Your task to perform on an android device: open app "TextNow: Call + Text Unlimited" (install if not already installed) Image 0: 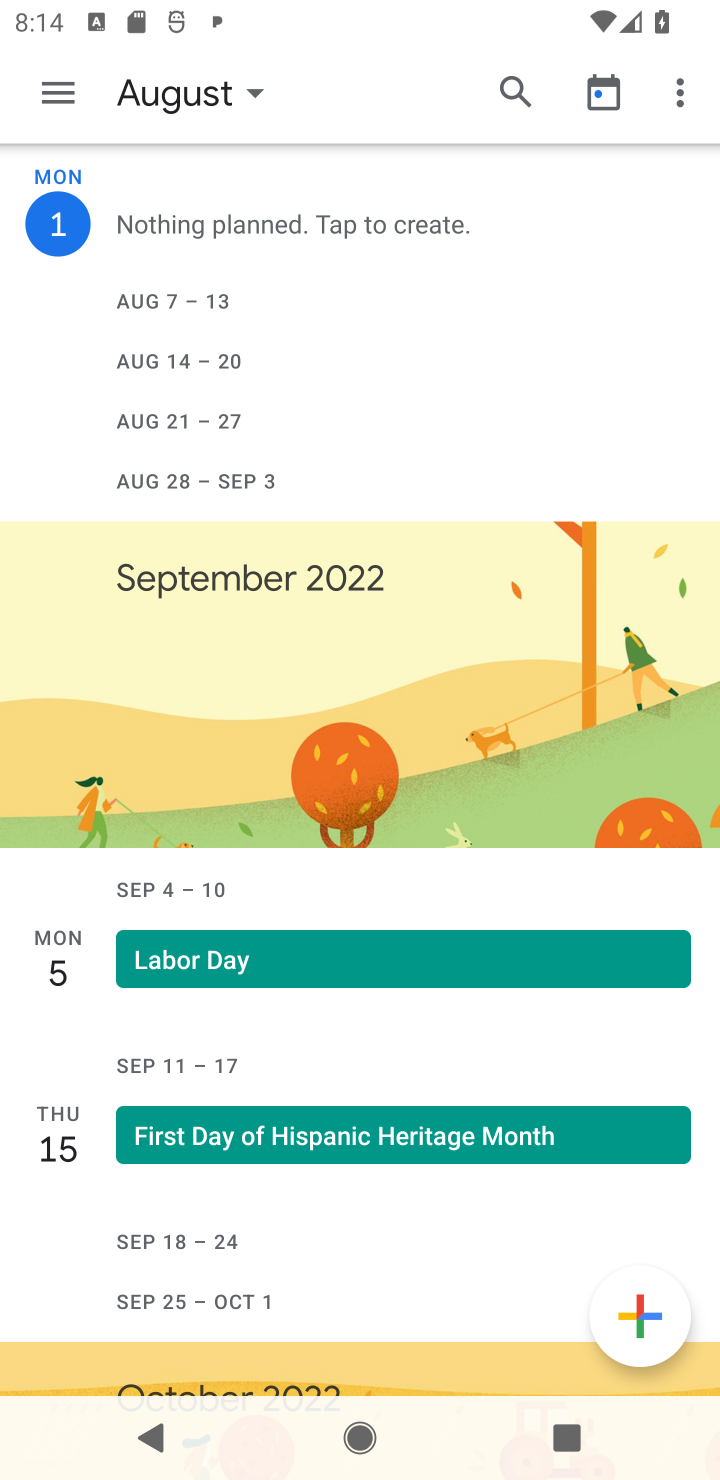
Step 0: press home button
Your task to perform on an android device: open app "TextNow: Call + Text Unlimited" (install if not already installed) Image 1: 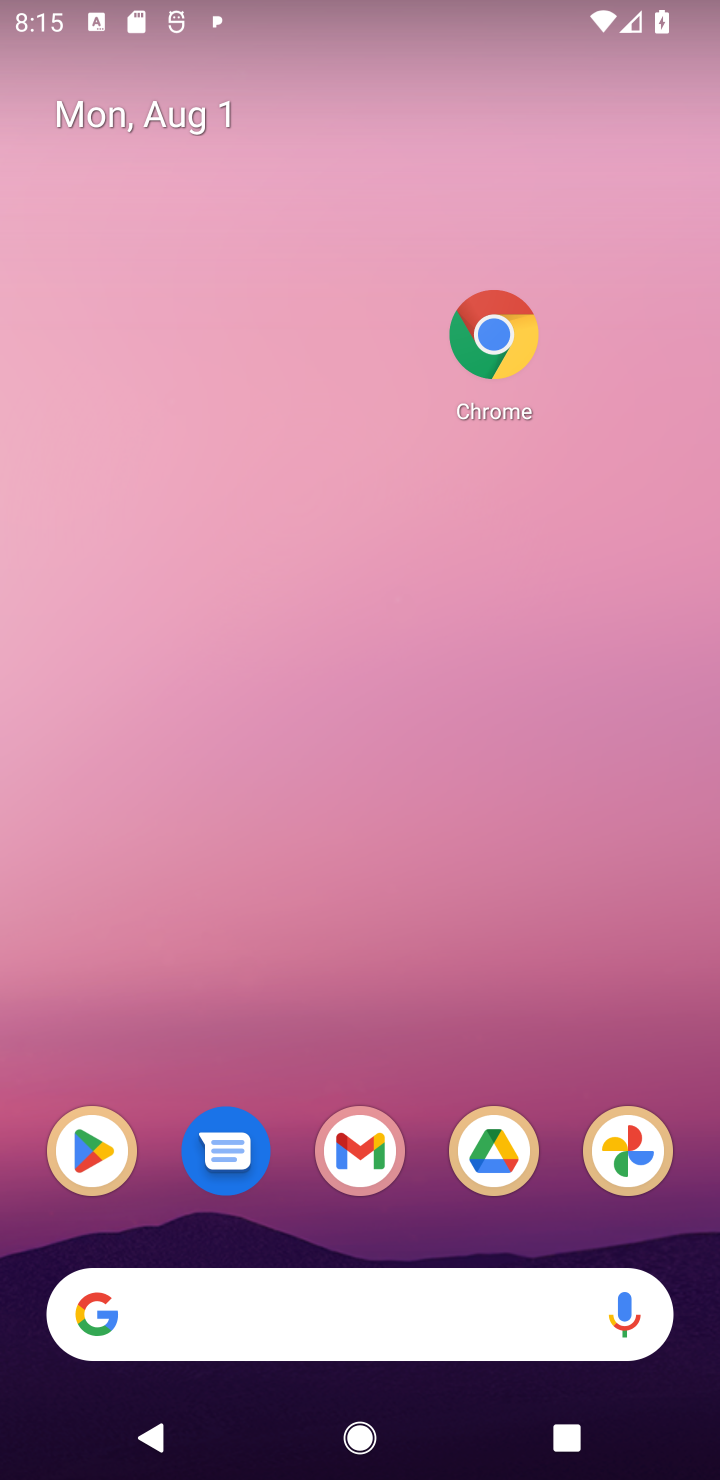
Step 1: click (84, 1136)
Your task to perform on an android device: open app "TextNow: Call + Text Unlimited" (install if not already installed) Image 2: 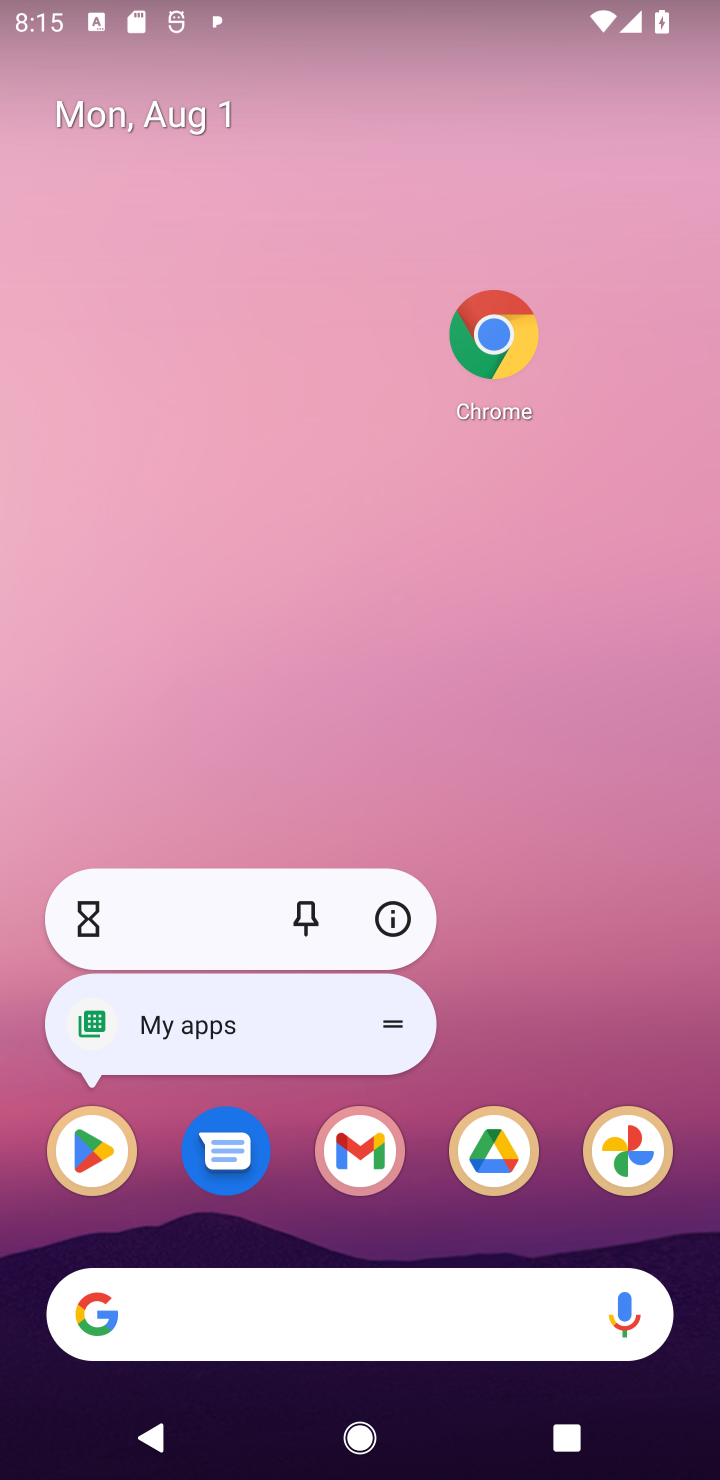
Step 2: click (107, 1170)
Your task to perform on an android device: open app "TextNow: Call + Text Unlimited" (install if not already installed) Image 3: 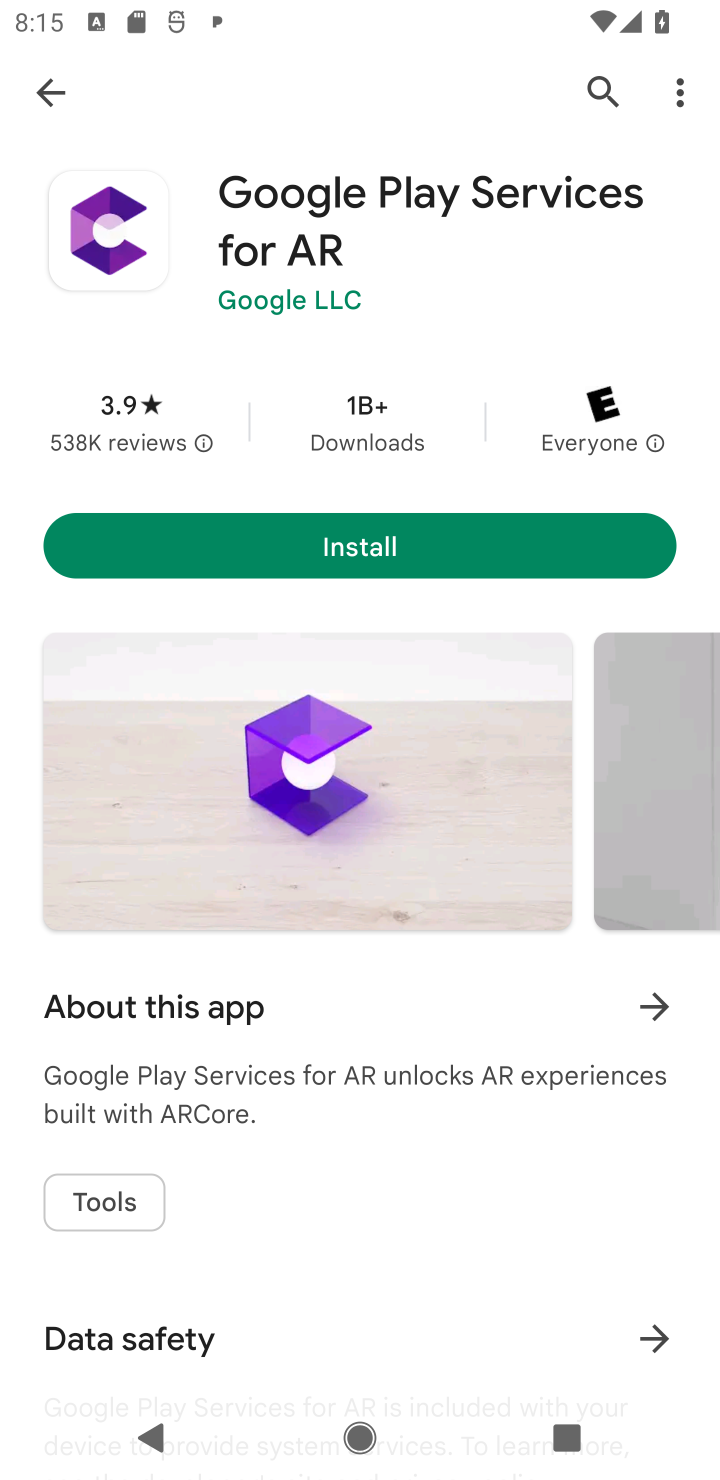
Step 3: click (595, 89)
Your task to perform on an android device: open app "TextNow: Call + Text Unlimited" (install if not already installed) Image 4: 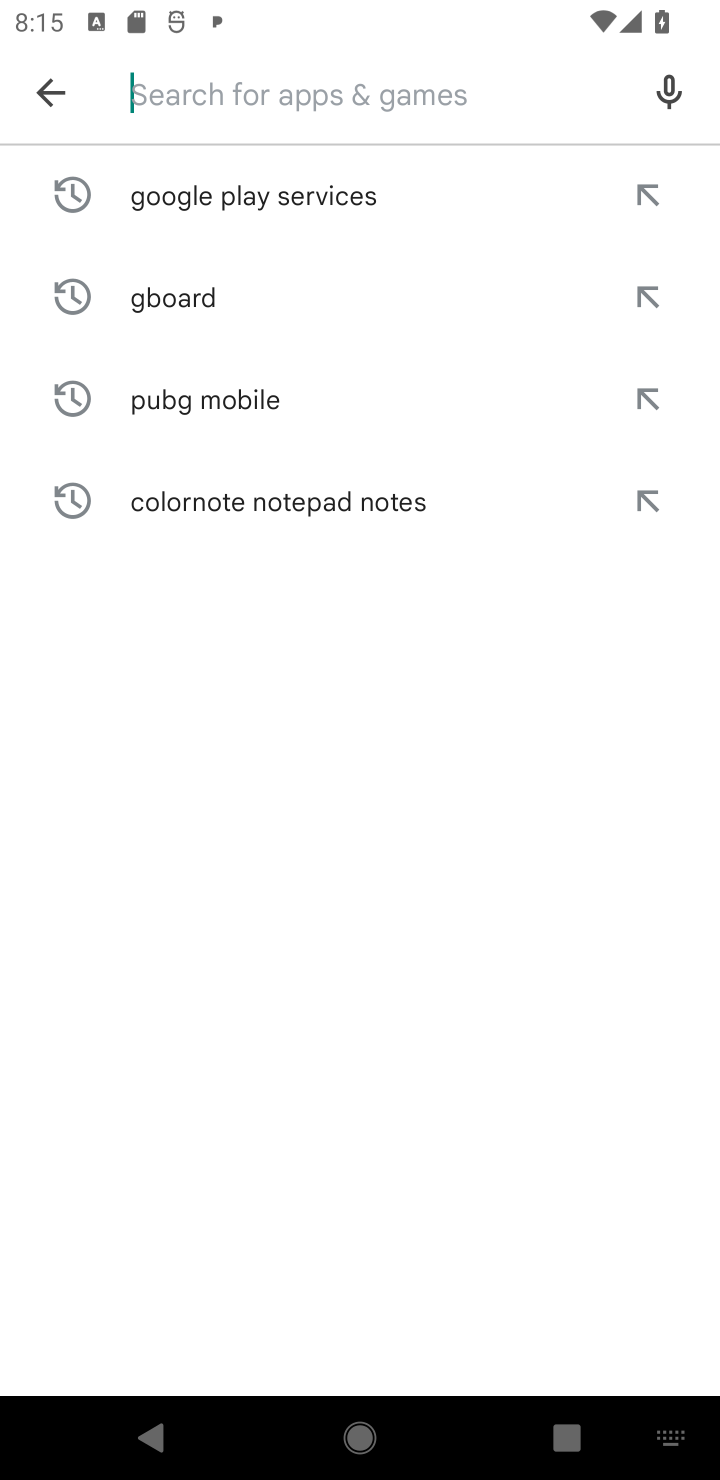
Step 4: type "TextNow: Call + Text Unlimited"
Your task to perform on an android device: open app "TextNow: Call + Text Unlimited" (install if not already installed) Image 5: 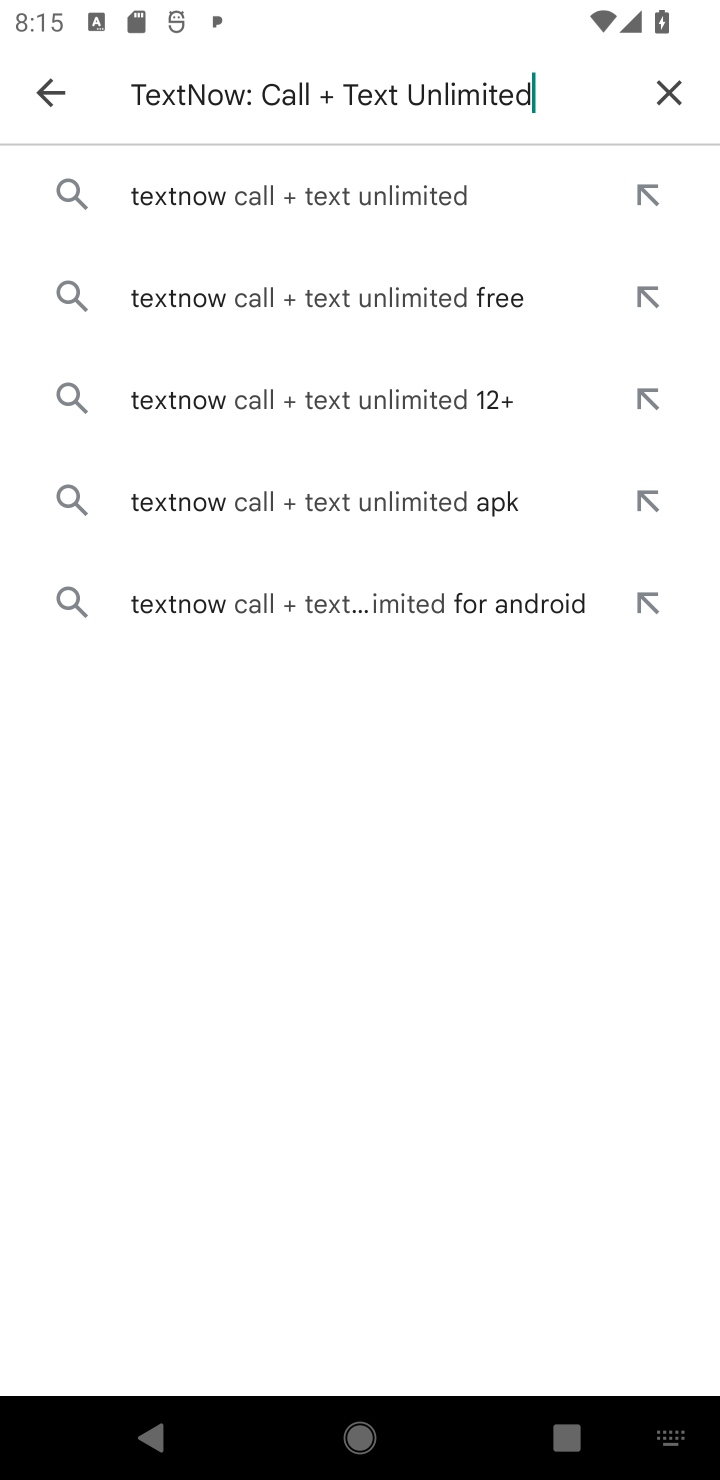
Step 5: click (297, 216)
Your task to perform on an android device: open app "TextNow: Call + Text Unlimited" (install if not already installed) Image 6: 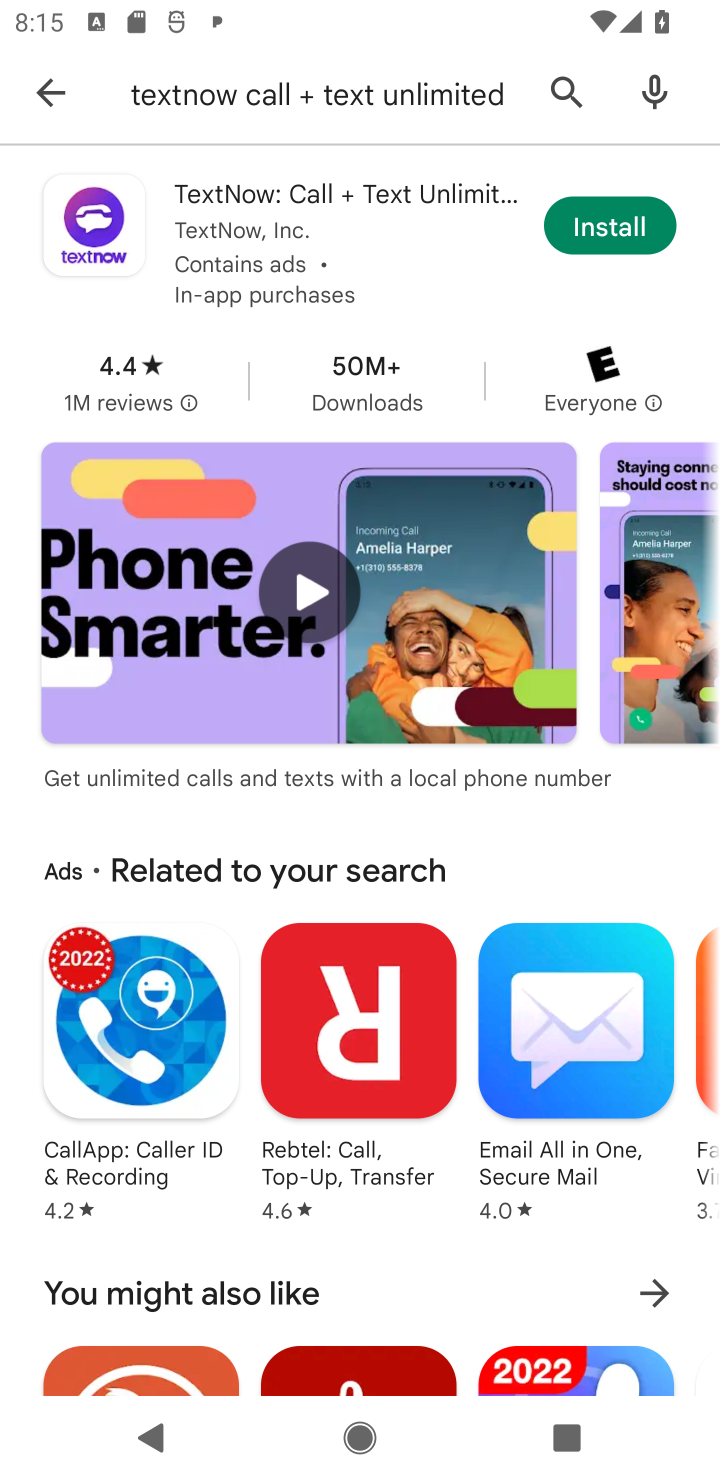
Step 6: click (617, 232)
Your task to perform on an android device: open app "TextNow: Call + Text Unlimited" (install if not already installed) Image 7: 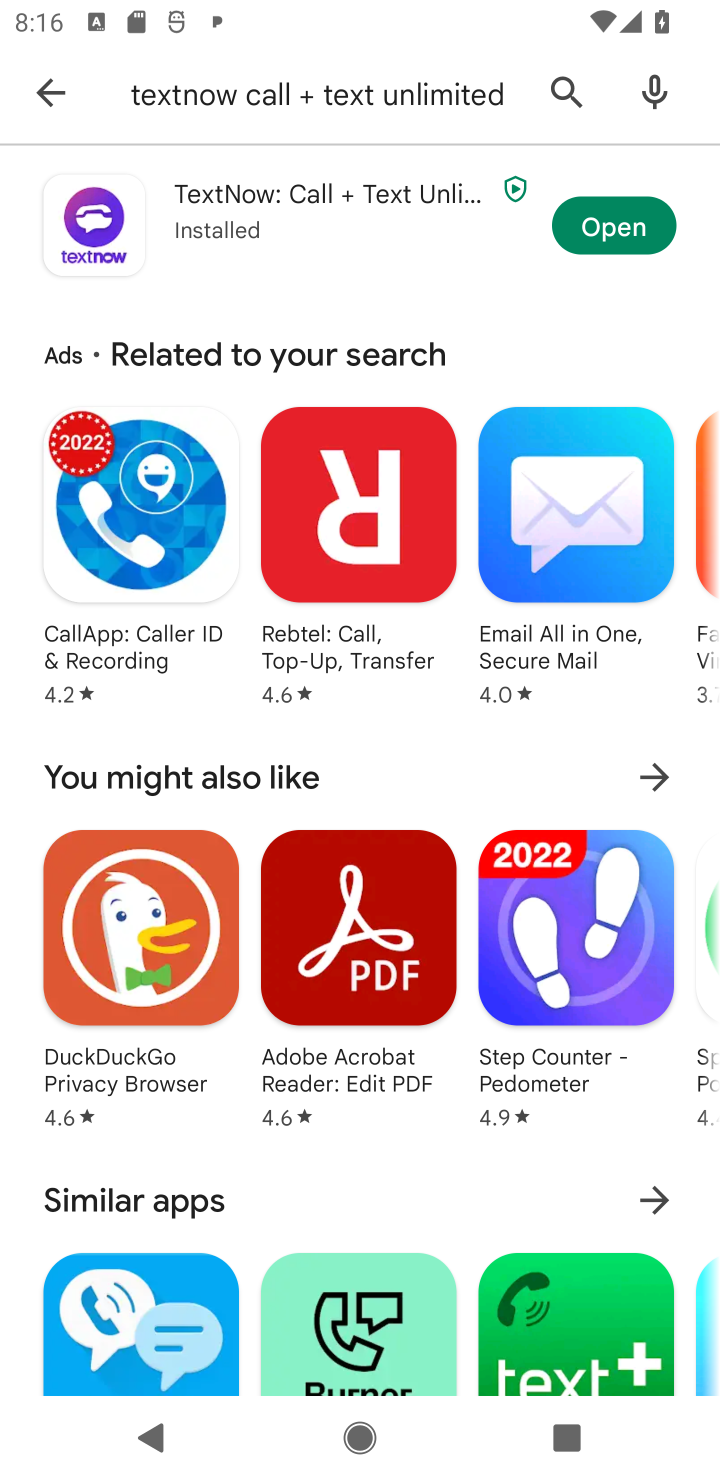
Step 7: click (602, 223)
Your task to perform on an android device: open app "TextNow: Call + Text Unlimited" (install if not already installed) Image 8: 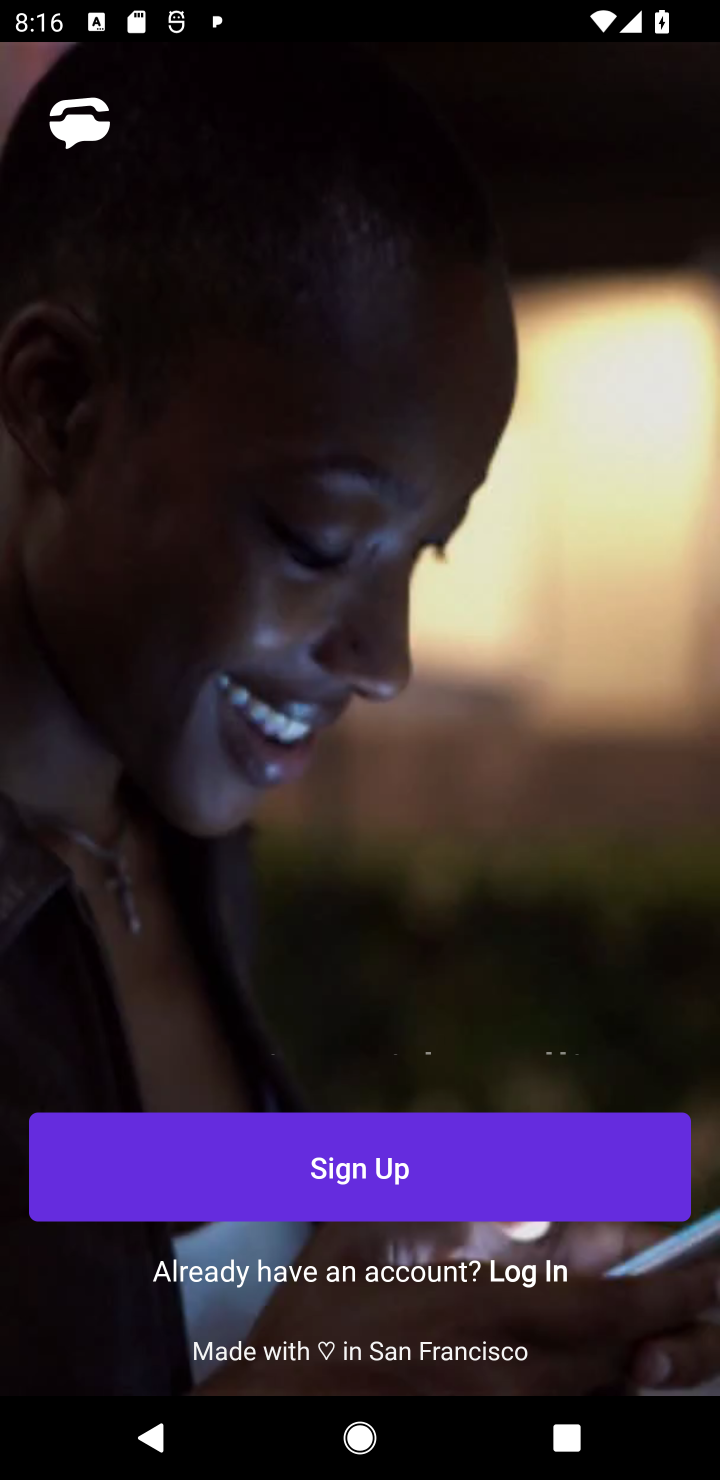
Step 8: task complete